Your task to perform on an android device: turn off priority inbox in the gmail app Image 0: 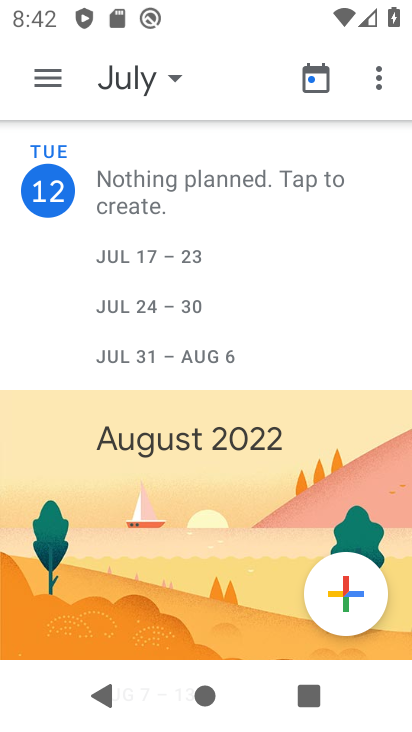
Step 0: press back button
Your task to perform on an android device: turn off priority inbox in the gmail app Image 1: 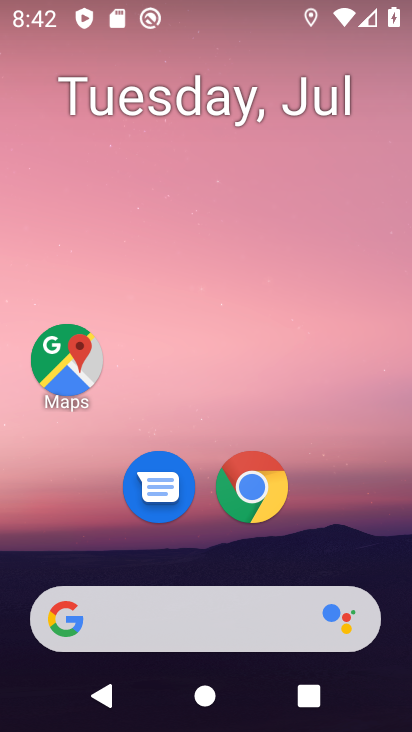
Step 1: drag from (166, 586) to (161, 61)
Your task to perform on an android device: turn off priority inbox in the gmail app Image 2: 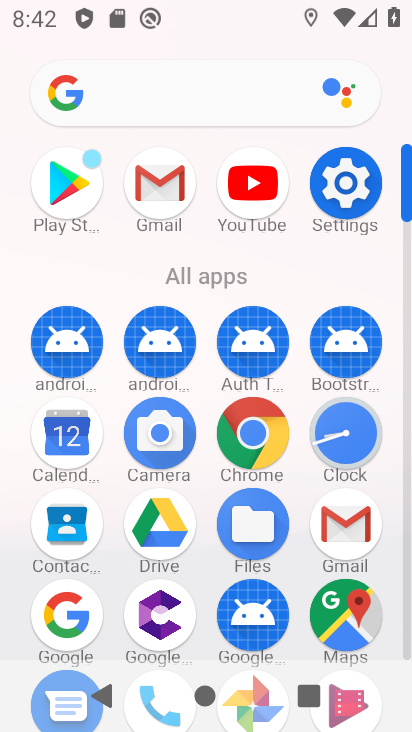
Step 2: click (168, 204)
Your task to perform on an android device: turn off priority inbox in the gmail app Image 3: 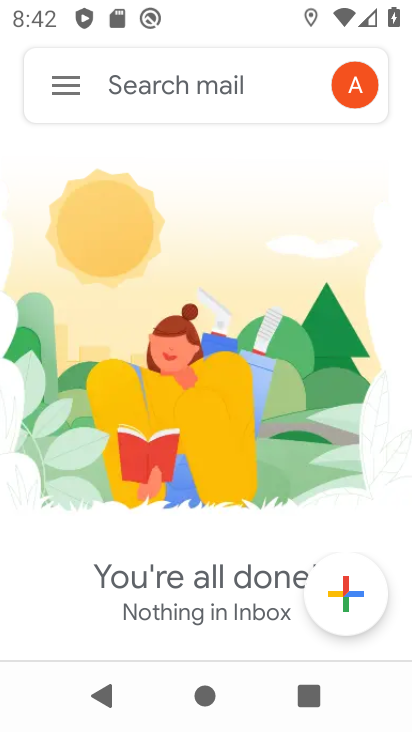
Step 3: click (64, 75)
Your task to perform on an android device: turn off priority inbox in the gmail app Image 4: 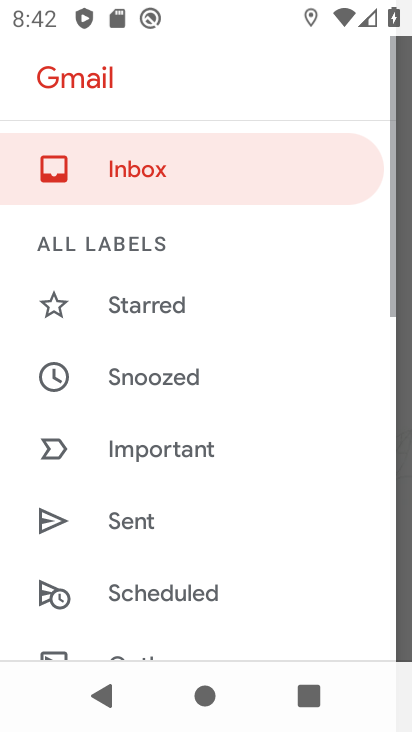
Step 4: drag from (177, 625) to (208, 32)
Your task to perform on an android device: turn off priority inbox in the gmail app Image 5: 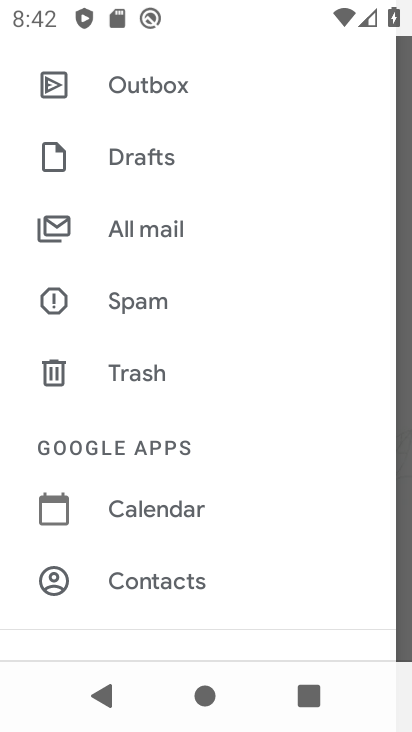
Step 5: drag from (182, 569) to (249, 57)
Your task to perform on an android device: turn off priority inbox in the gmail app Image 6: 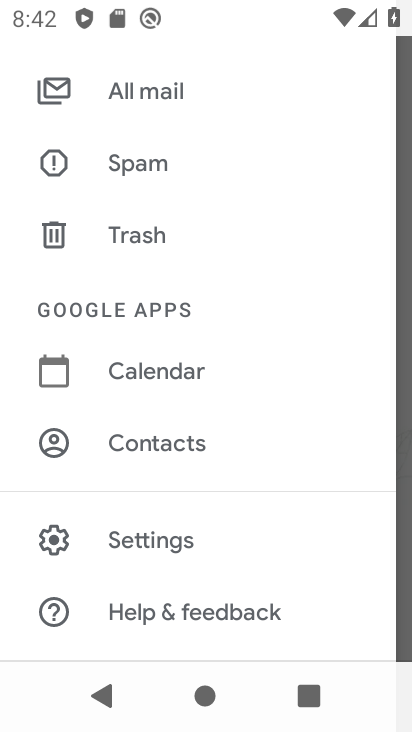
Step 6: click (152, 546)
Your task to perform on an android device: turn off priority inbox in the gmail app Image 7: 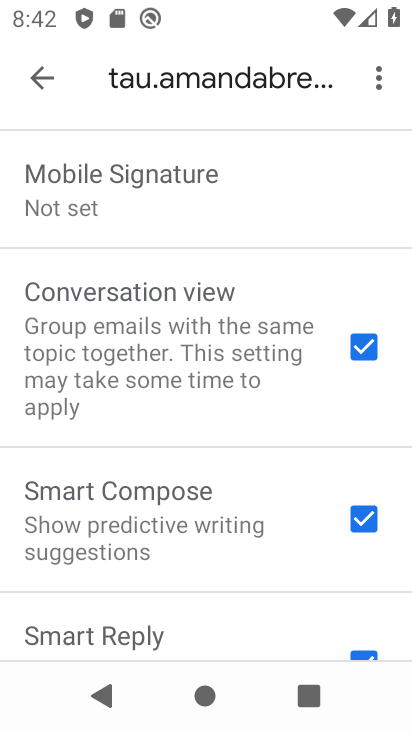
Step 7: drag from (268, 157) to (224, 731)
Your task to perform on an android device: turn off priority inbox in the gmail app Image 8: 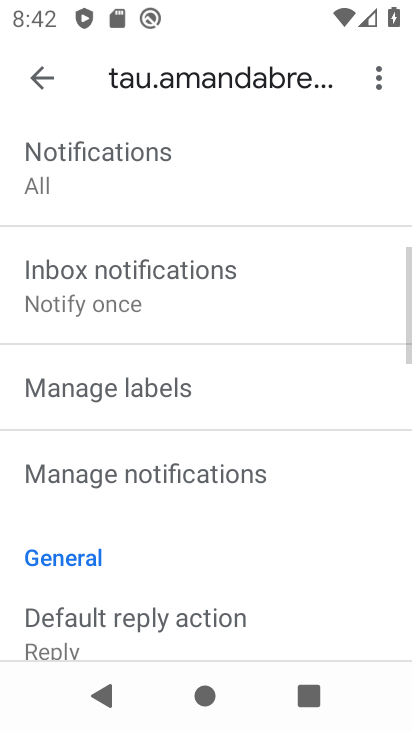
Step 8: drag from (252, 187) to (244, 727)
Your task to perform on an android device: turn off priority inbox in the gmail app Image 9: 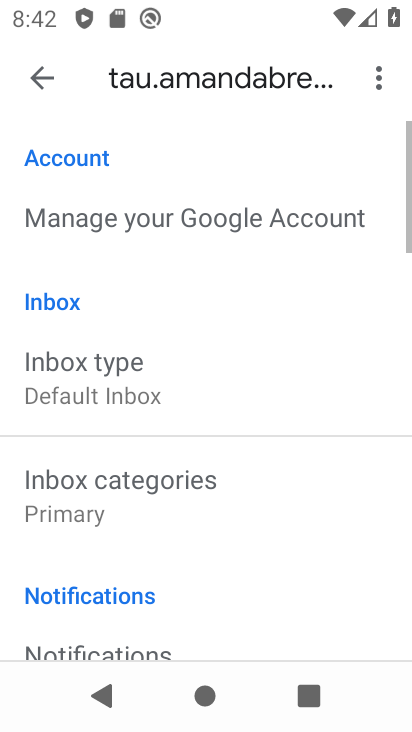
Step 9: click (138, 390)
Your task to perform on an android device: turn off priority inbox in the gmail app Image 10: 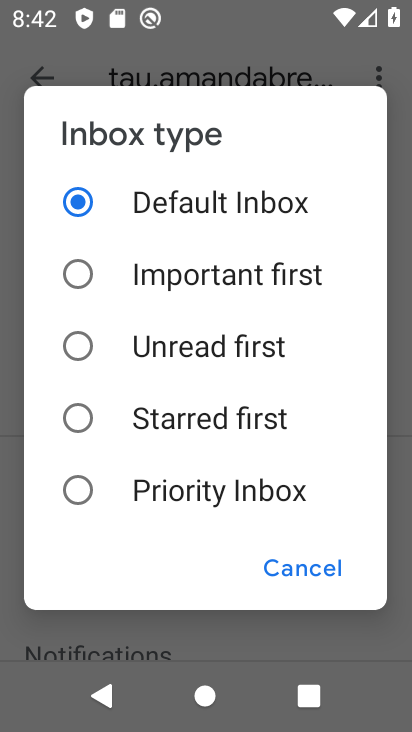
Step 10: task complete